Your task to perform on an android device: Open ESPN.com Image 0: 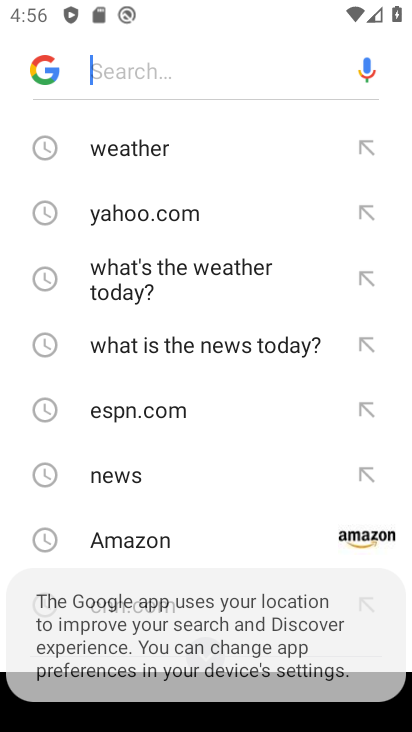
Step 0: click (190, 417)
Your task to perform on an android device: Open ESPN.com Image 1: 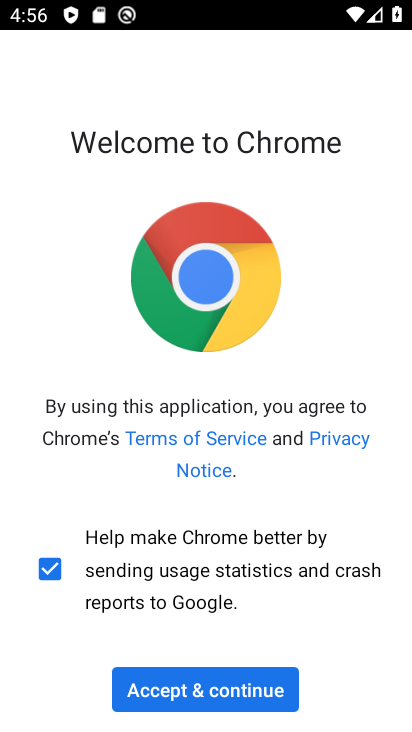
Step 1: click (263, 690)
Your task to perform on an android device: Open ESPN.com Image 2: 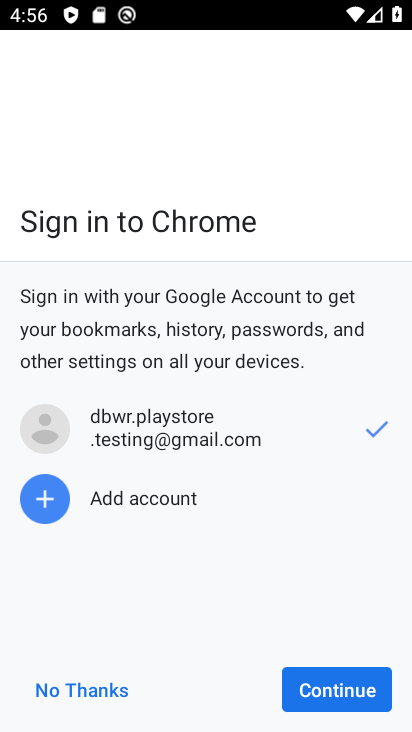
Step 2: click (302, 690)
Your task to perform on an android device: Open ESPN.com Image 3: 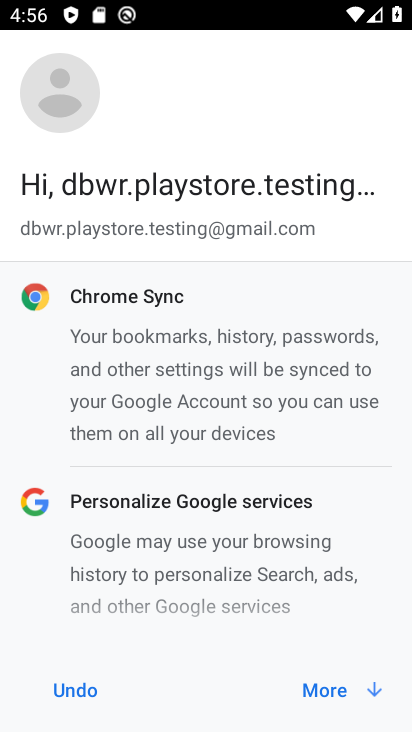
Step 3: click (302, 690)
Your task to perform on an android device: Open ESPN.com Image 4: 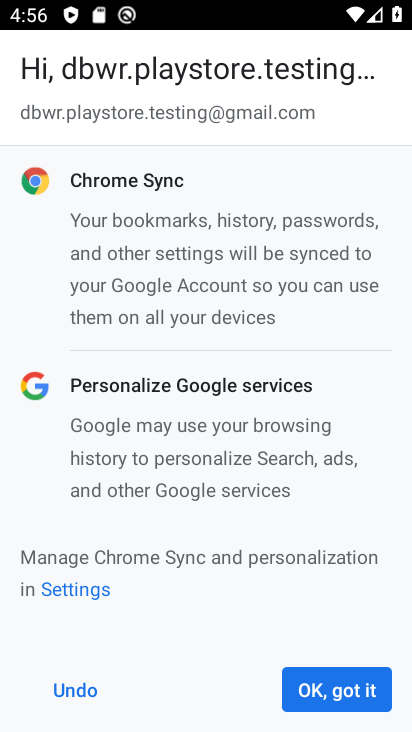
Step 4: click (302, 690)
Your task to perform on an android device: Open ESPN.com Image 5: 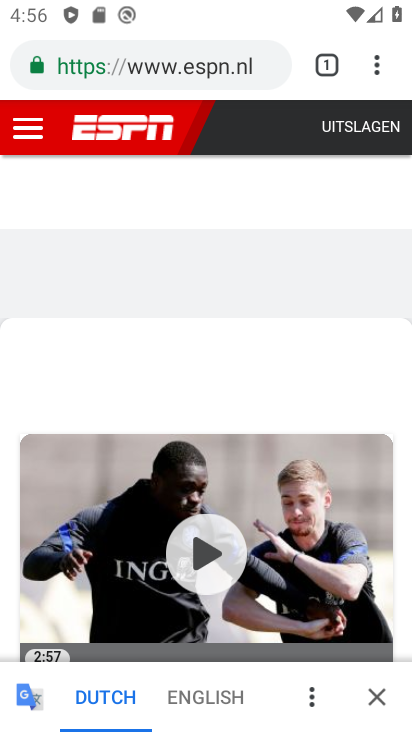
Step 5: task complete